Your task to perform on an android device: Find coffee shops on Maps Image 0: 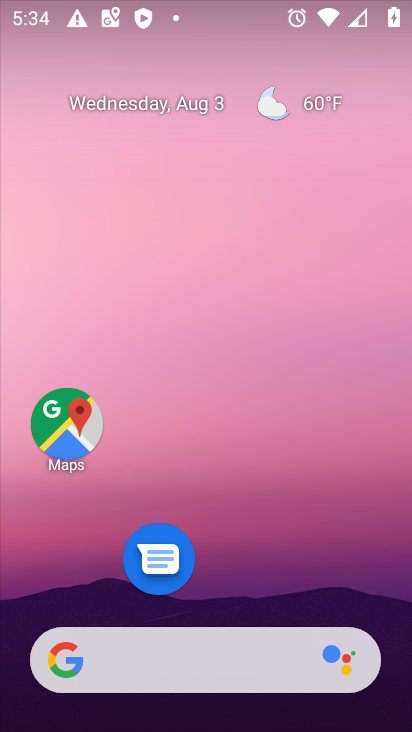
Step 0: click (63, 423)
Your task to perform on an android device: Find coffee shops on Maps Image 1: 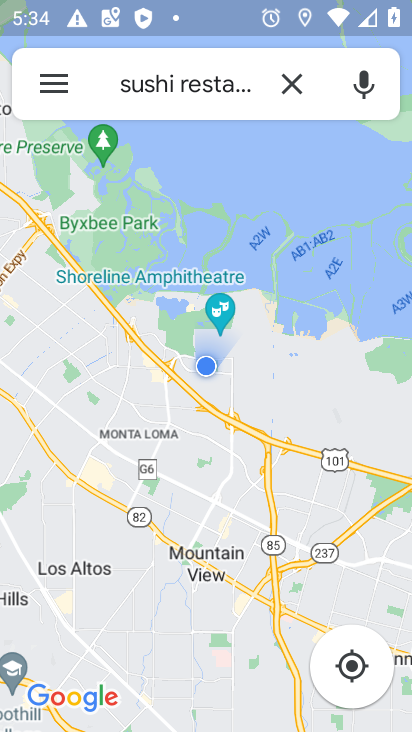
Step 1: click (40, 85)
Your task to perform on an android device: Find coffee shops on Maps Image 2: 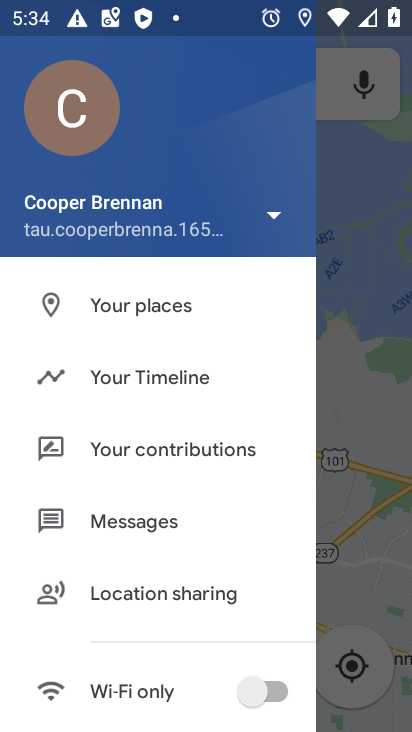
Step 2: click (344, 154)
Your task to perform on an android device: Find coffee shops on Maps Image 3: 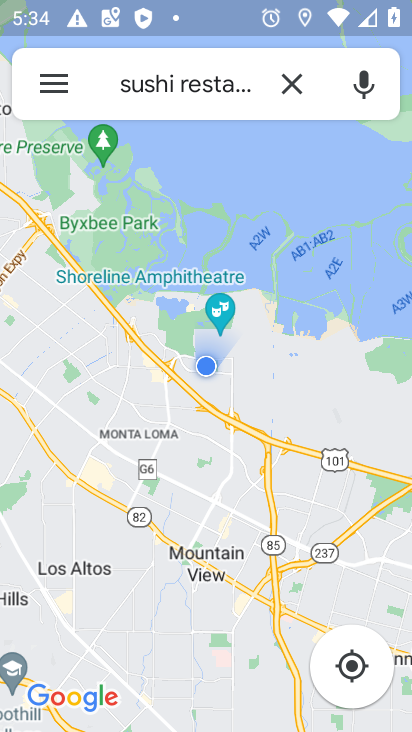
Step 3: click (289, 81)
Your task to perform on an android device: Find coffee shops on Maps Image 4: 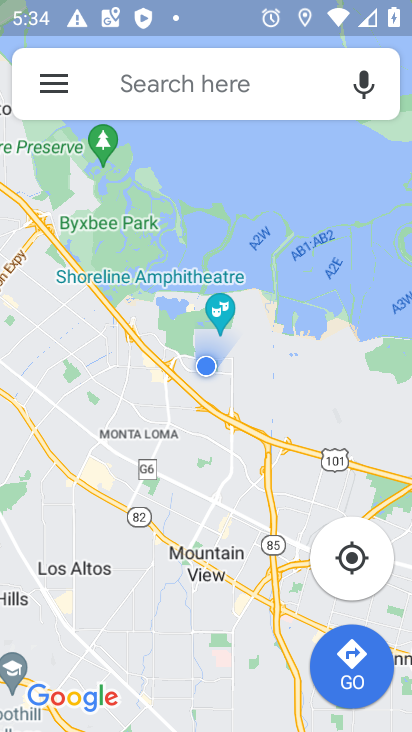
Step 4: click (161, 84)
Your task to perform on an android device: Find coffee shops on Maps Image 5: 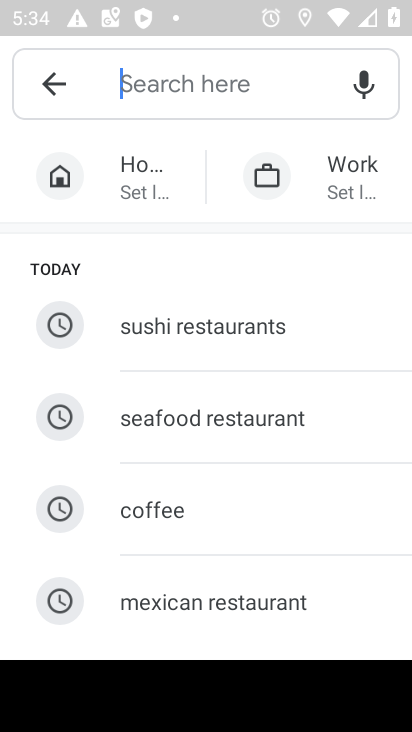
Step 5: click (172, 497)
Your task to perform on an android device: Find coffee shops on Maps Image 6: 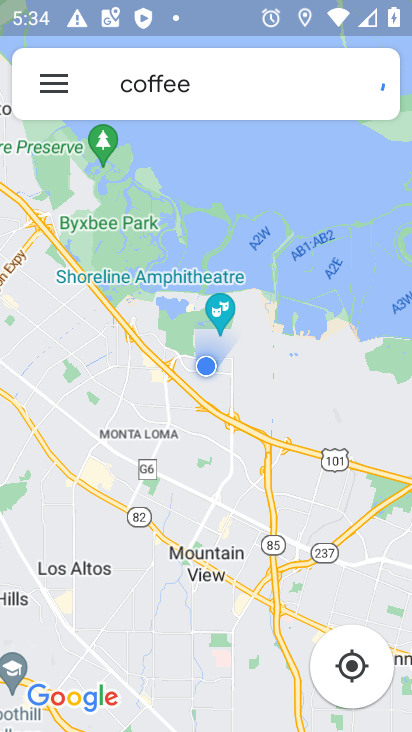
Step 6: task complete